Your task to perform on an android device: change the clock style Image 0: 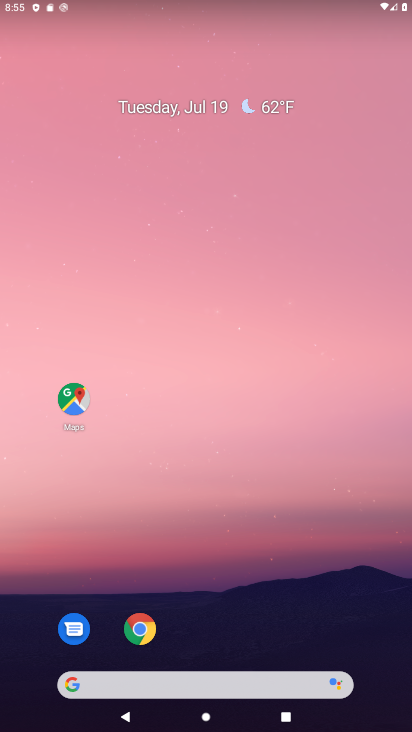
Step 0: drag from (216, 654) to (180, 0)
Your task to perform on an android device: change the clock style Image 1: 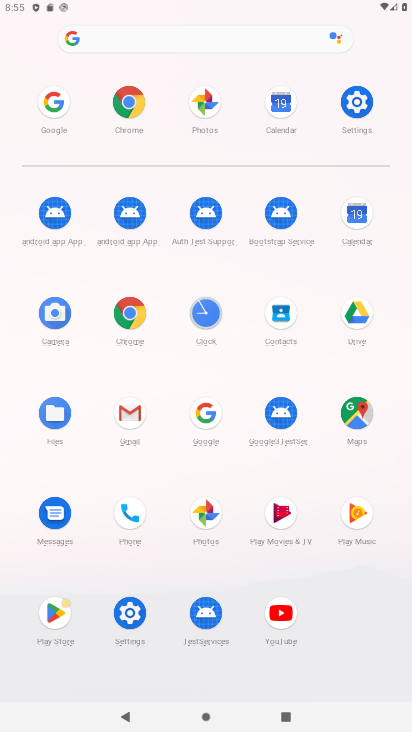
Step 1: click (205, 307)
Your task to perform on an android device: change the clock style Image 2: 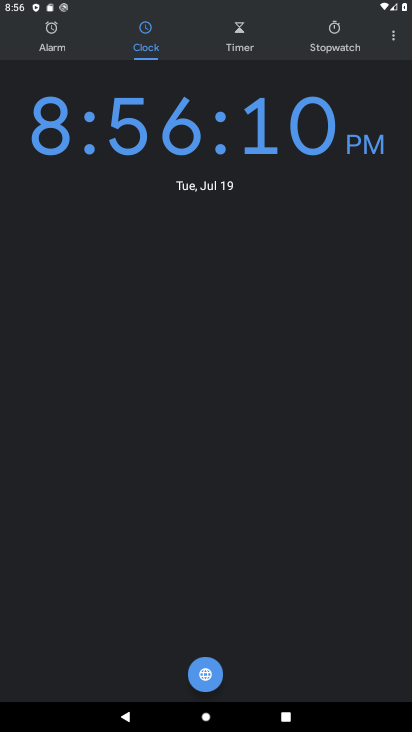
Step 2: click (390, 36)
Your task to perform on an android device: change the clock style Image 3: 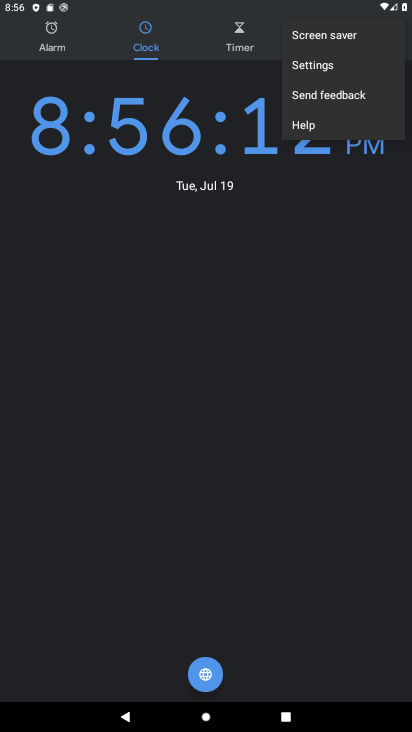
Step 3: click (317, 70)
Your task to perform on an android device: change the clock style Image 4: 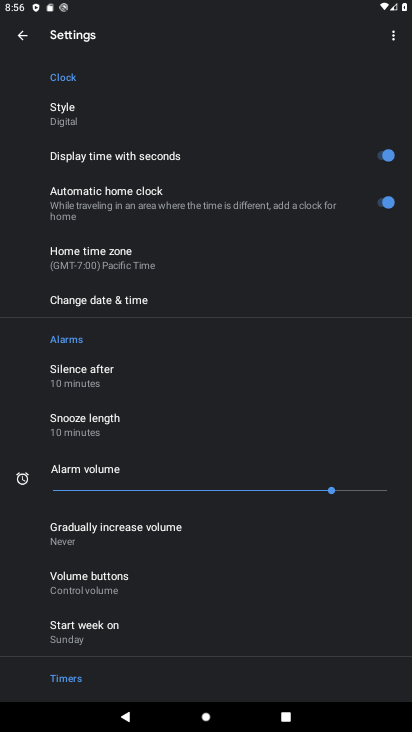
Step 4: click (89, 110)
Your task to perform on an android device: change the clock style Image 5: 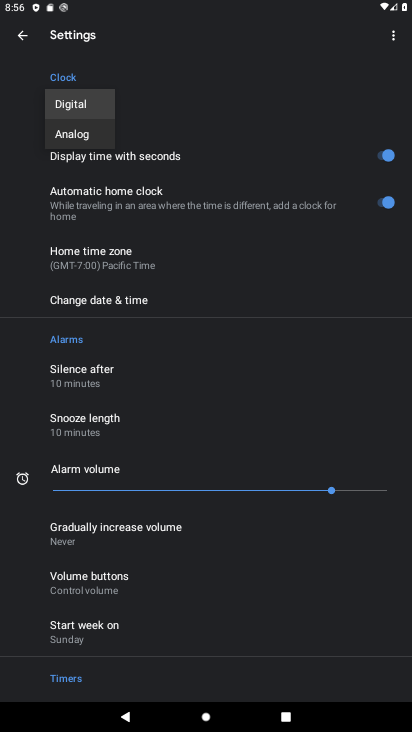
Step 5: click (97, 136)
Your task to perform on an android device: change the clock style Image 6: 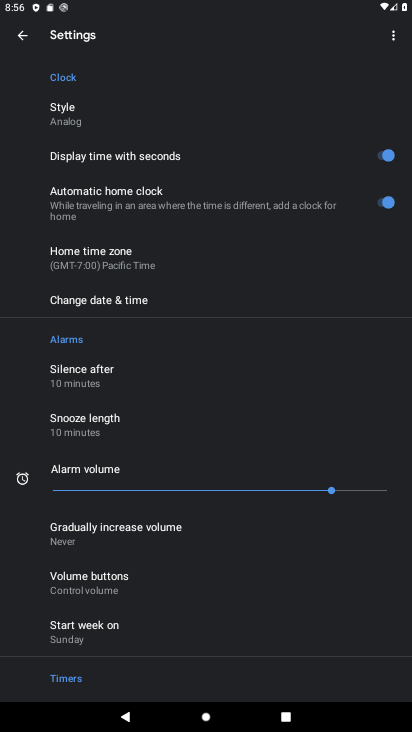
Step 6: task complete